Your task to perform on an android device: turn off translation in the chrome app Image 0: 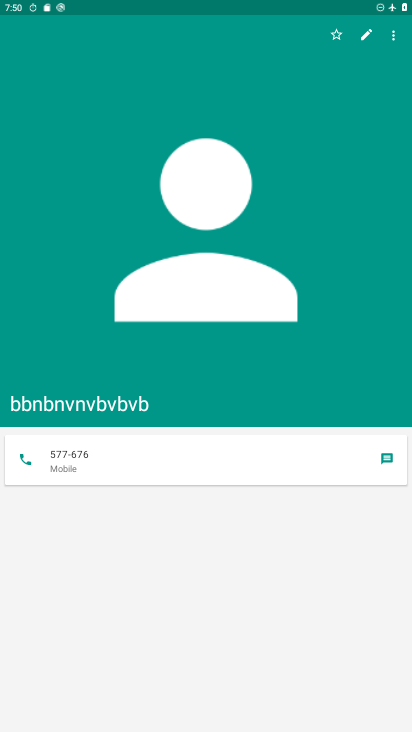
Step 0: drag from (346, 662) to (350, 207)
Your task to perform on an android device: turn off translation in the chrome app Image 1: 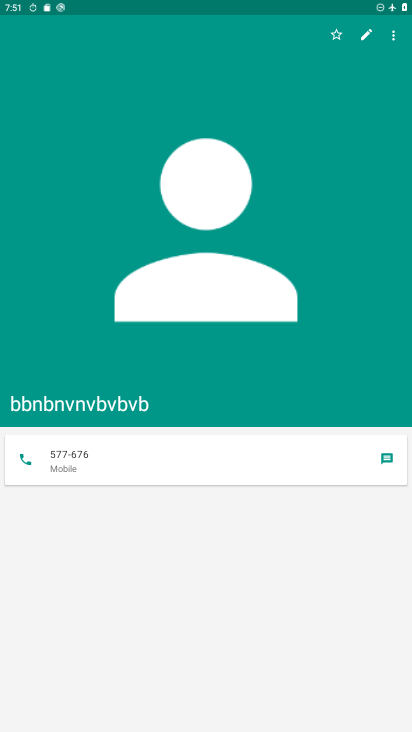
Step 1: press home button
Your task to perform on an android device: turn off translation in the chrome app Image 2: 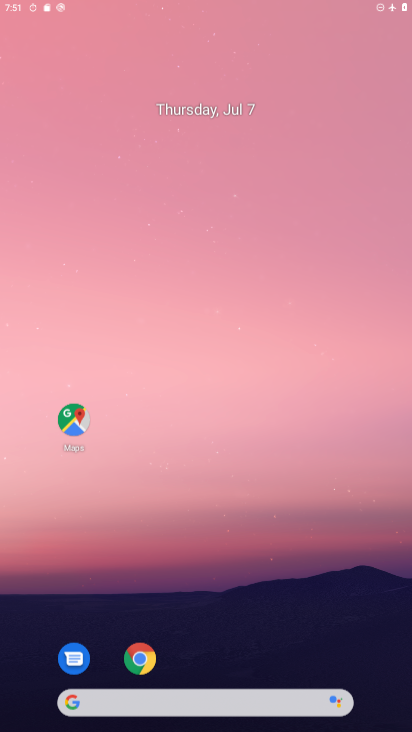
Step 2: drag from (354, 659) to (304, 144)
Your task to perform on an android device: turn off translation in the chrome app Image 3: 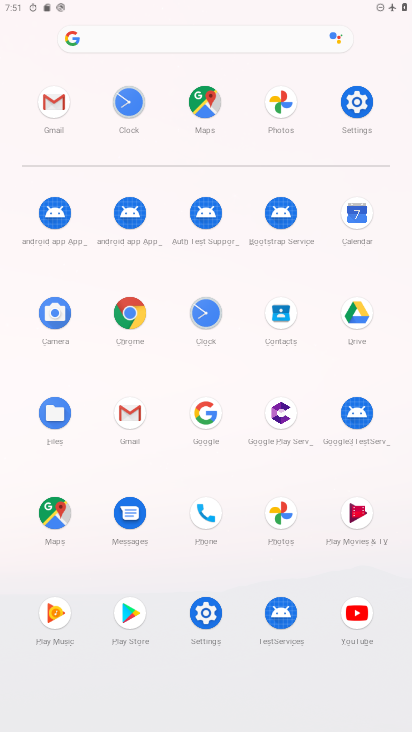
Step 3: click (121, 305)
Your task to perform on an android device: turn off translation in the chrome app Image 4: 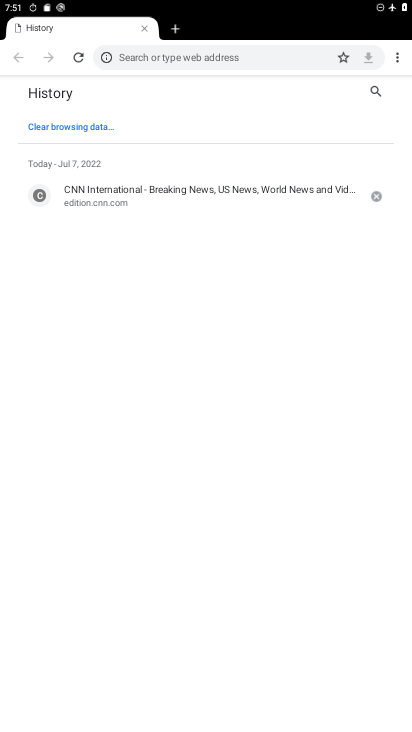
Step 4: click (399, 53)
Your task to perform on an android device: turn off translation in the chrome app Image 5: 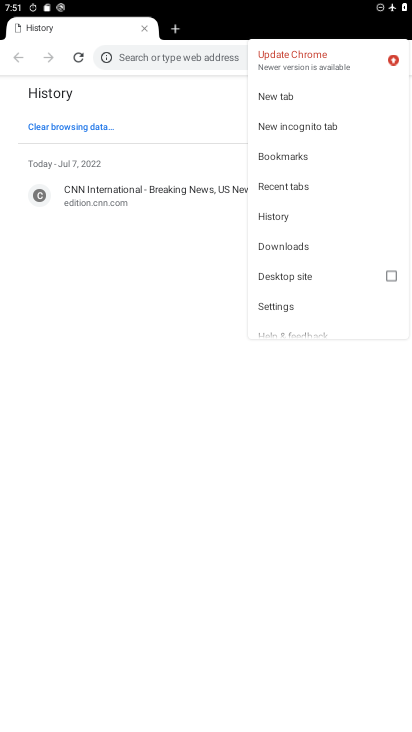
Step 5: click (277, 305)
Your task to perform on an android device: turn off translation in the chrome app Image 6: 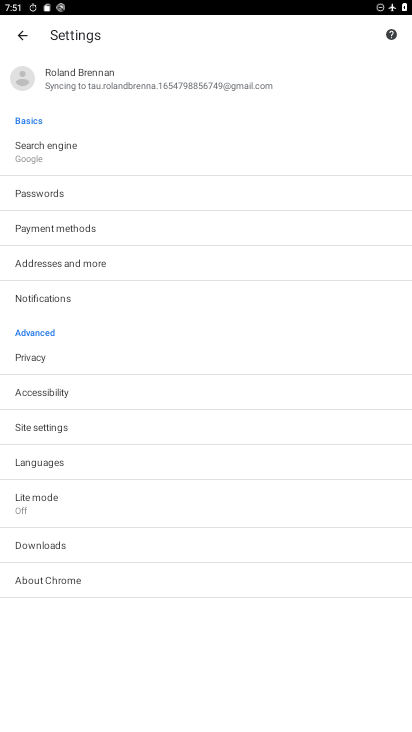
Step 6: click (80, 467)
Your task to perform on an android device: turn off translation in the chrome app Image 7: 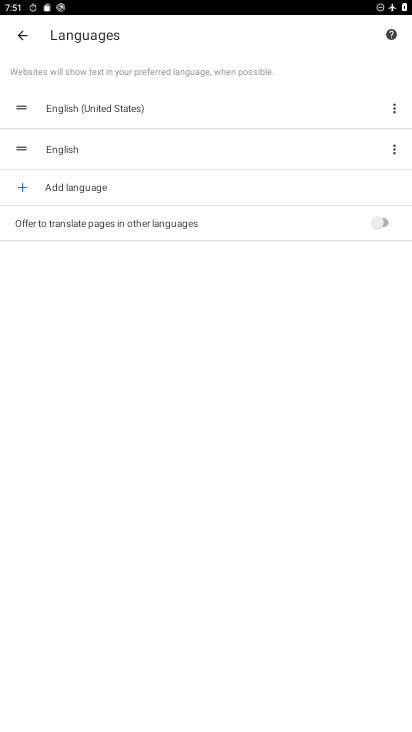
Step 7: task complete